Your task to perform on an android device: Open Google Maps Image 0: 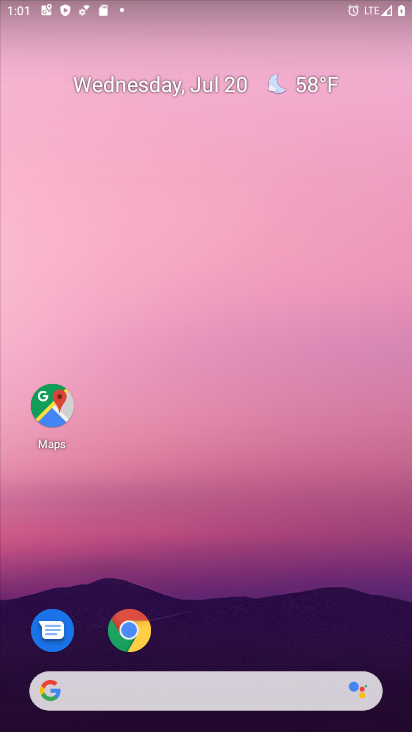
Step 0: drag from (217, 645) to (279, 164)
Your task to perform on an android device: Open Google Maps Image 1: 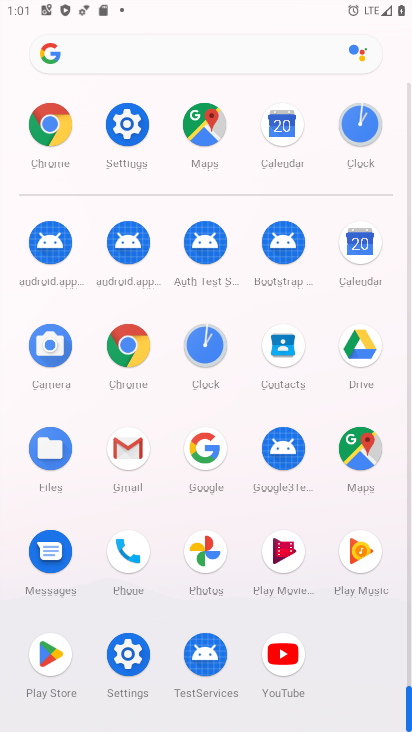
Step 1: click (372, 452)
Your task to perform on an android device: Open Google Maps Image 2: 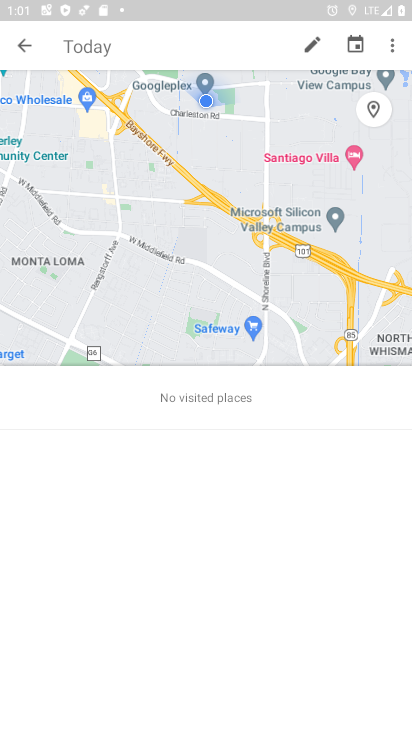
Step 2: click (23, 52)
Your task to perform on an android device: Open Google Maps Image 3: 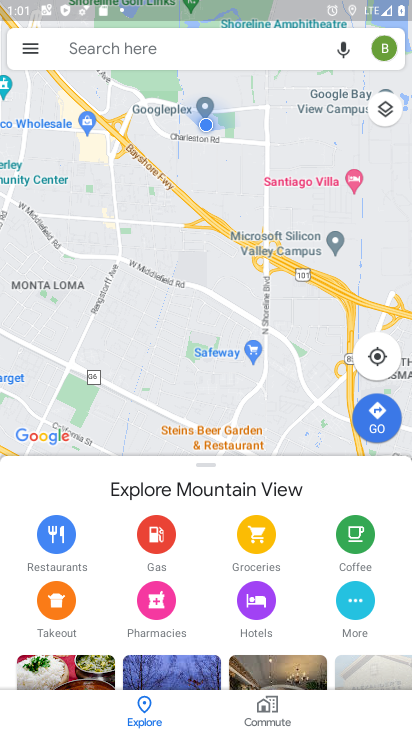
Step 3: task complete